Your task to perform on an android device: turn off notifications settings in the gmail app Image 0: 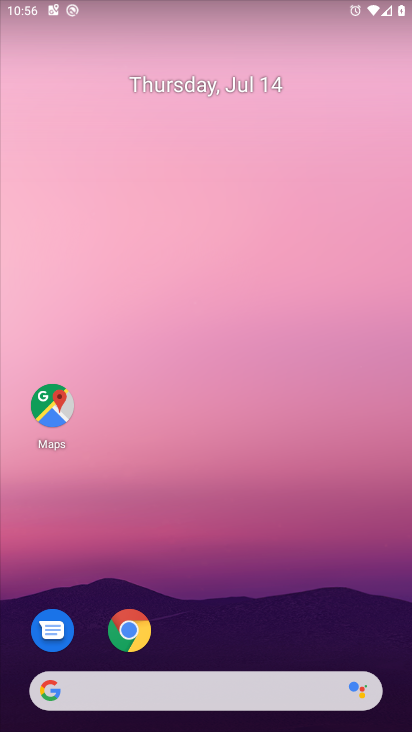
Step 0: drag from (1, 706) to (184, 245)
Your task to perform on an android device: turn off notifications settings in the gmail app Image 1: 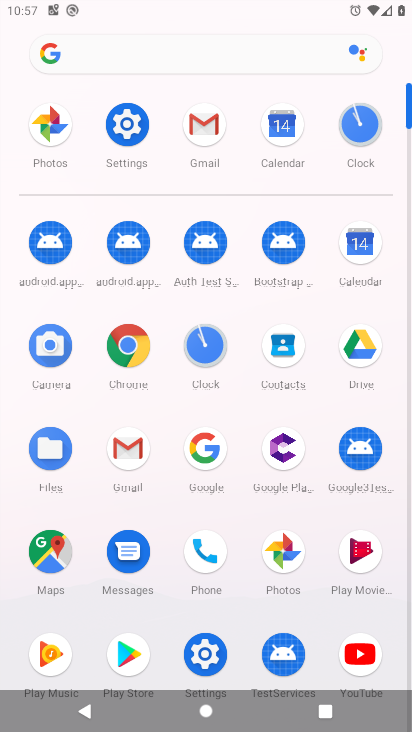
Step 1: click (119, 470)
Your task to perform on an android device: turn off notifications settings in the gmail app Image 2: 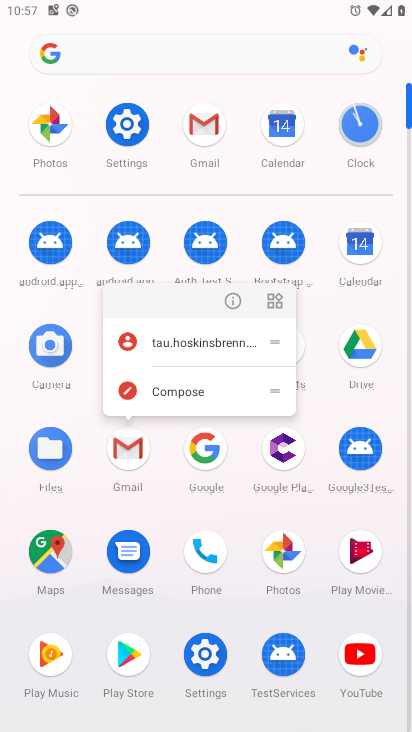
Step 2: click (136, 462)
Your task to perform on an android device: turn off notifications settings in the gmail app Image 3: 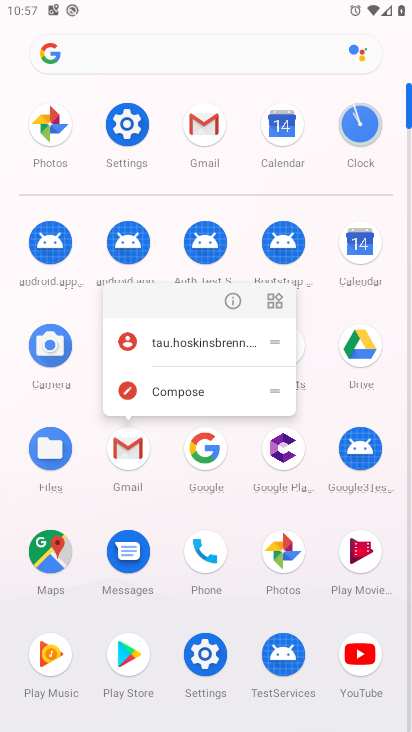
Step 3: task complete